Your task to perform on an android device: What's the weather going to be this weekend? Image 0: 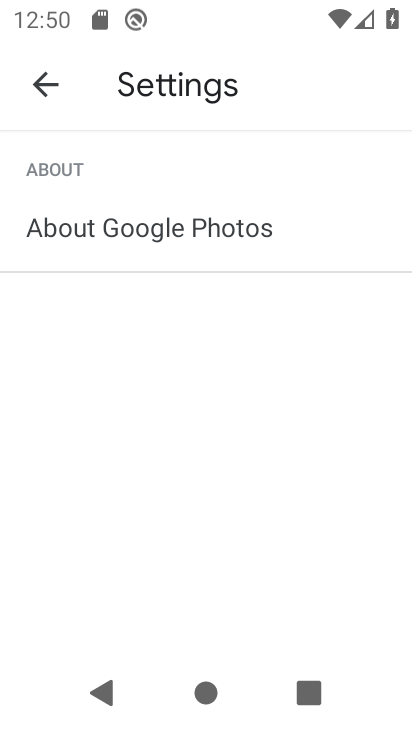
Step 0: drag from (214, 585) to (304, 272)
Your task to perform on an android device: What's the weather going to be this weekend? Image 1: 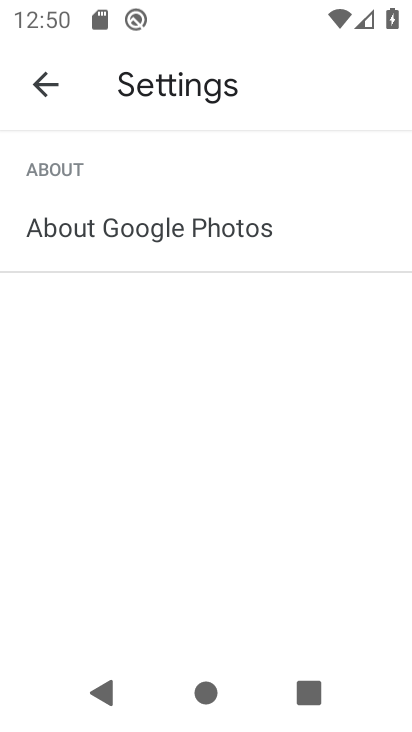
Step 1: drag from (202, 563) to (240, 348)
Your task to perform on an android device: What's the weather going to be this weekend? Image 2: 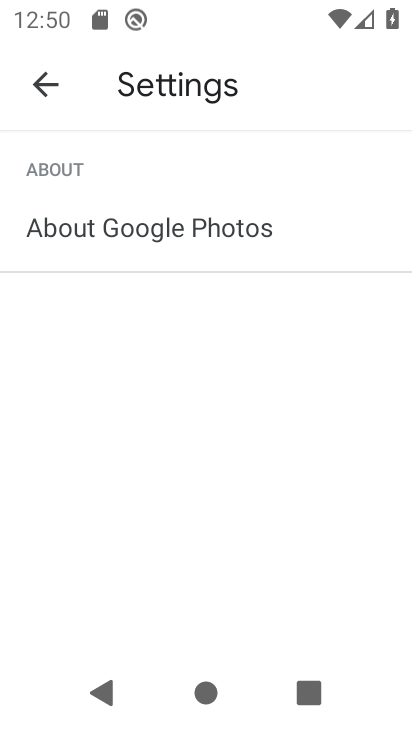
Step 2: drag from (225, 500) to (290, 248)
Your task to perform on an android device: What's the weather going to be this weekend? Image 3: 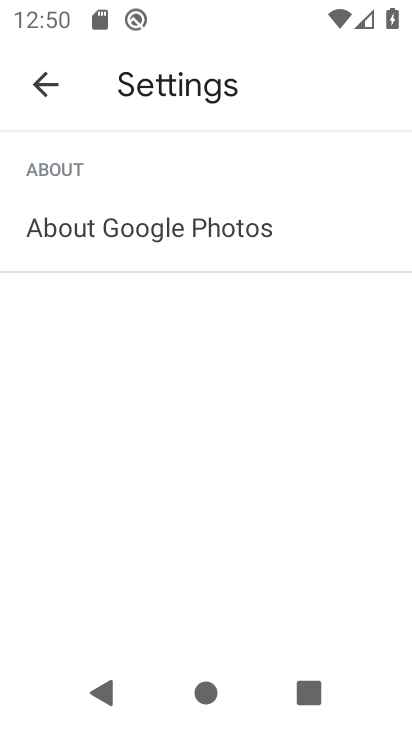
Step 3: drag from (226, 524) to (330, 174)
Your task to perform on an android device: What's the weather going to be this weekend? Image 4: 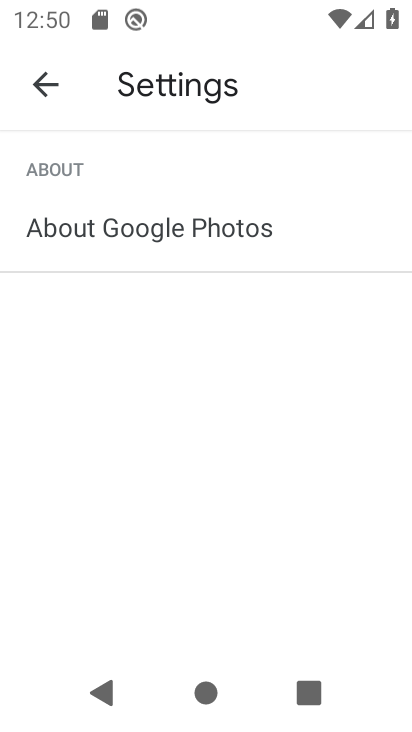
Step 4: press home button
Your task to perform on an android device: What's the weather going to be this weekend? Image 5: 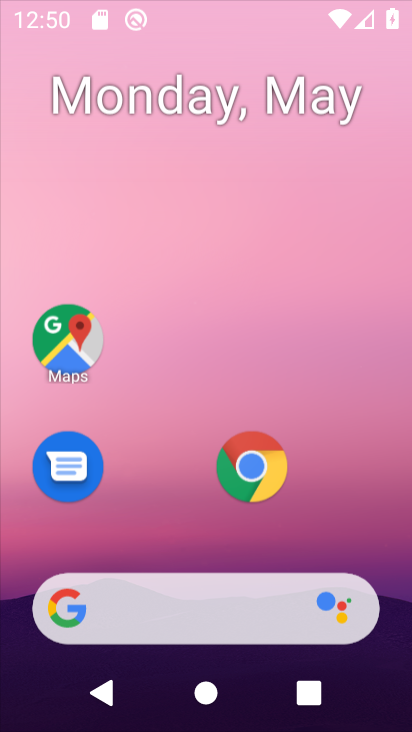
Step 5: drag from (157, 649) to (318, 4)
Your task to perform on an android device: What's the weather going to be this weekend? Image 6: 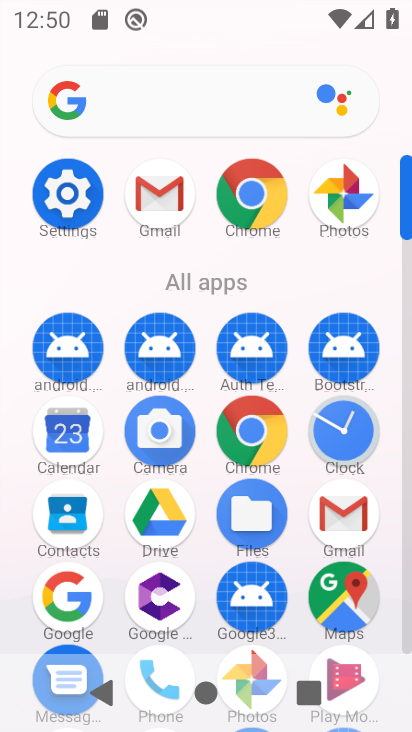
Step 6: click (206, 96)
Your task to perform on an android device: What's the weather going to be this weekend? Image 7: 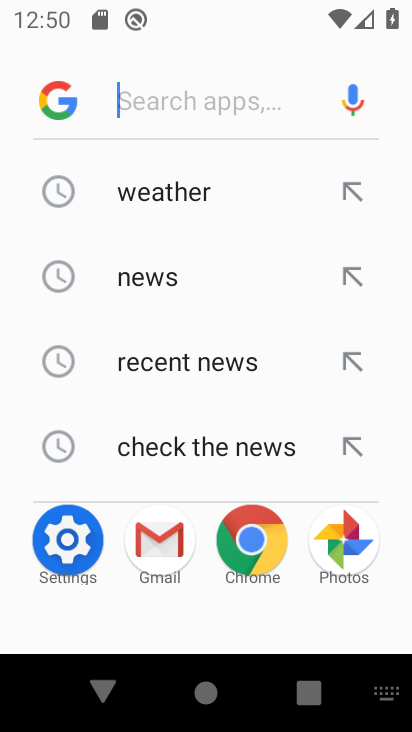
Step 7: type "What's the weather going to be this weekend?"
Your task to perform on an android device: What's the weather going to be this weekend? Image 8: 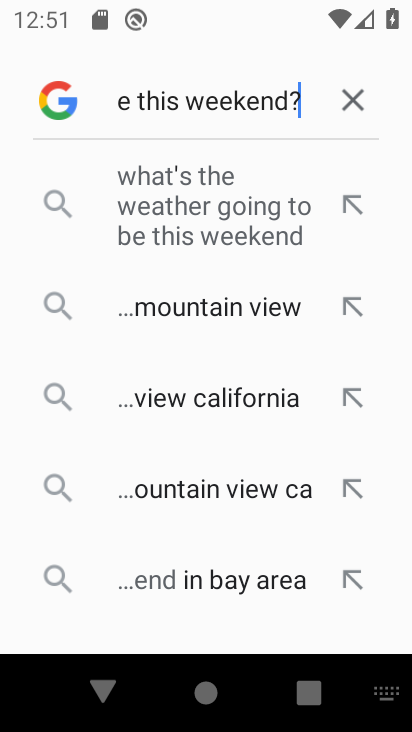
Step 8: click (181, 169)
Your task to perform on an android device: What's the weather going to be this weekend? Image 9: 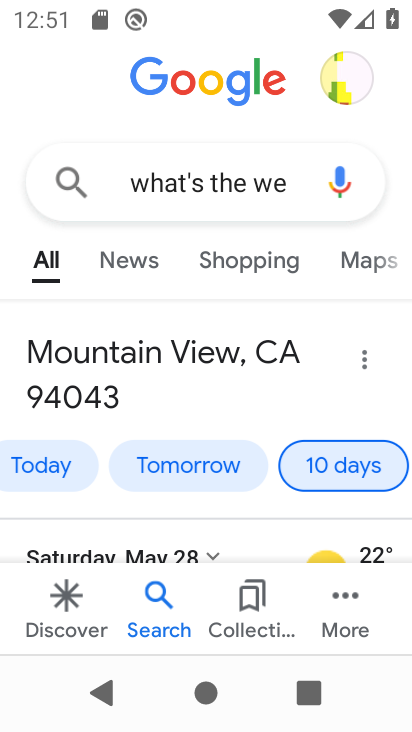
Step 9: task complete